Your task to perform on an android device: toggle location history Image 0: 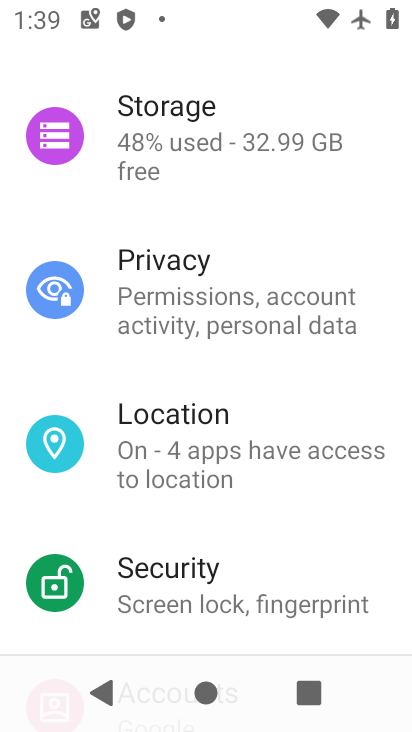
Step 0: press home button
Your task to perform on an android device: toggle location history Image 1: 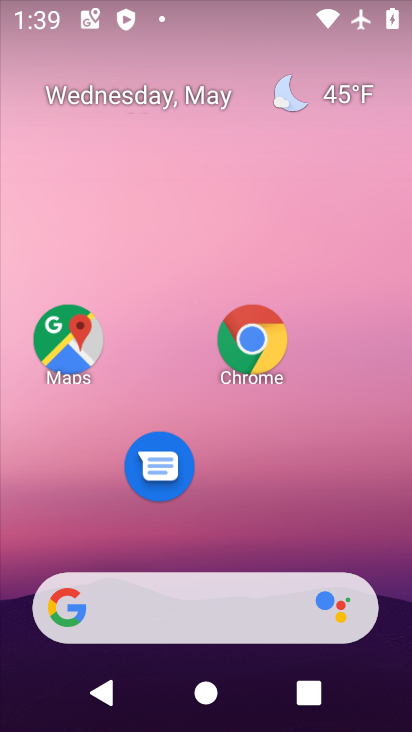
Step 1: drag from (178, 608) to (312, 182)
Your task to perform on an android device: toggle location history Image 2: 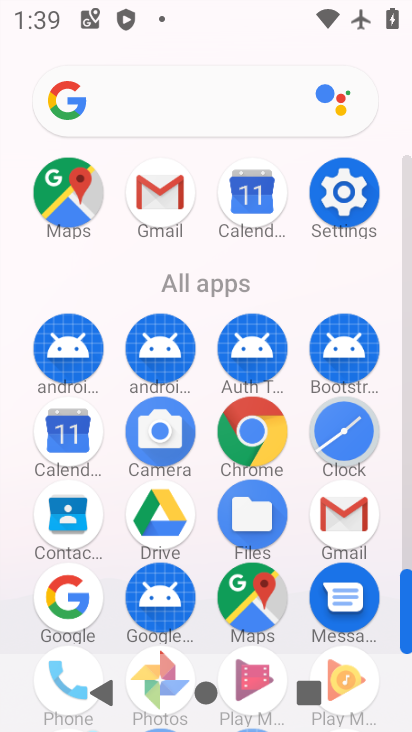
Step 2: click (240, 601)
Your task to perform on an android device: toggle location history Image 3: 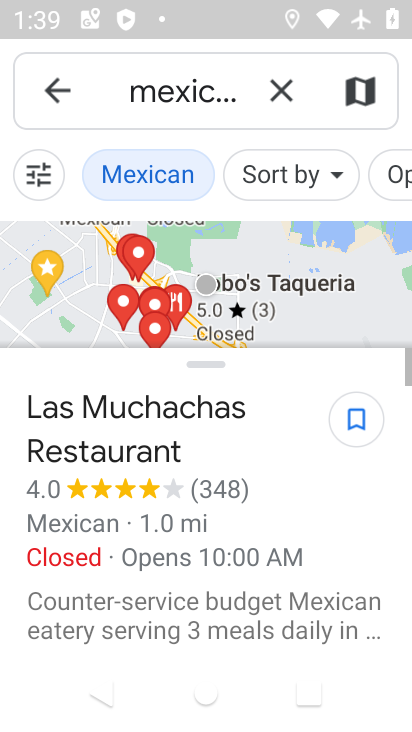
Step 3: click (53, 88)
Your task to perform on an android device: toggle location history Image 4: 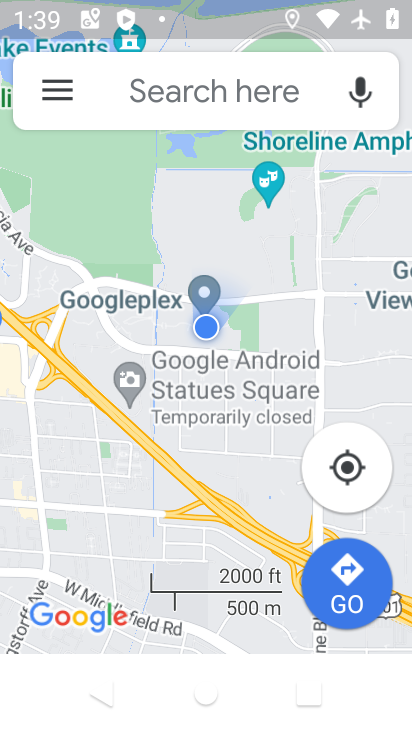
Step 4: click (58, 87)
Your task to perform on an android device: toggle location history Image 5: 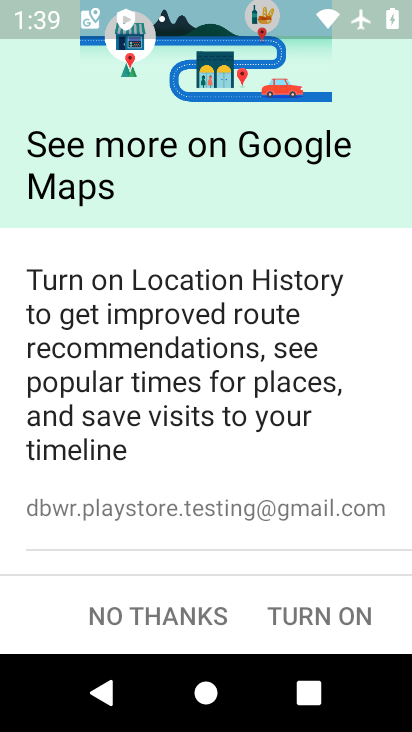
Step 5: click (153, 617)
Your task to perform on an android device: toggle location history Image 6: 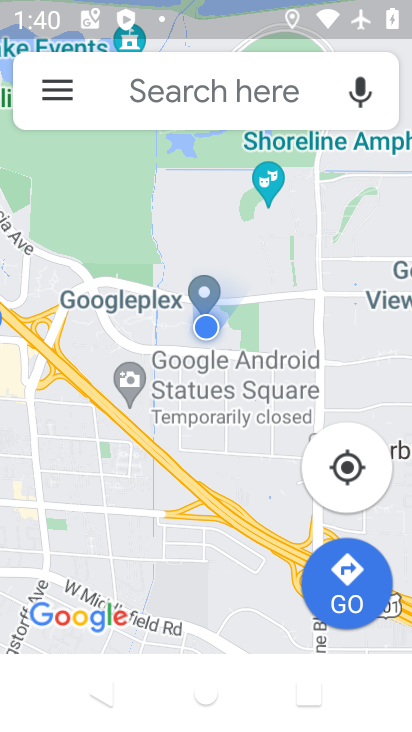
Step 6: click (45, 81)
Your task to perform on an android device: toggle location history Image 7: 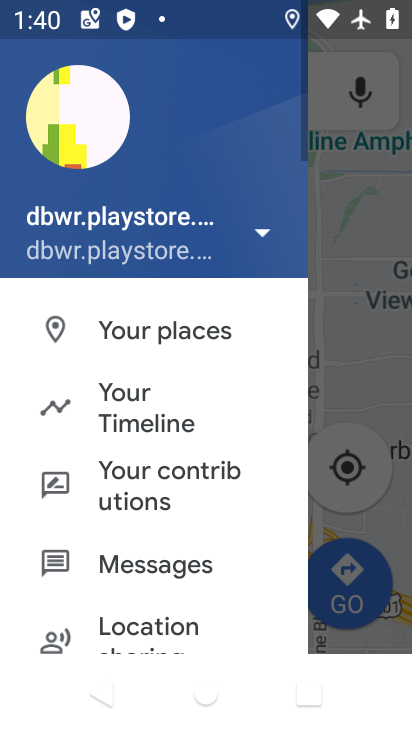
Step 7: click (161, 404)
Your task to perform on an android device: toggle location history Image 8: 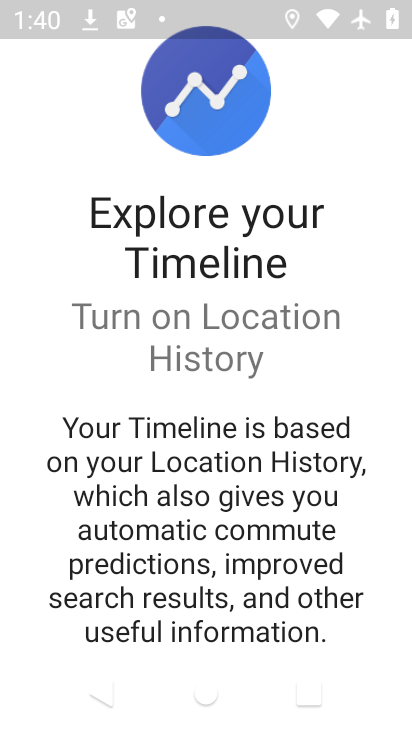
Step 8: drag from (236, 617) to (327, 116)
Your task to perform on an android device: toggle location history Image 9: 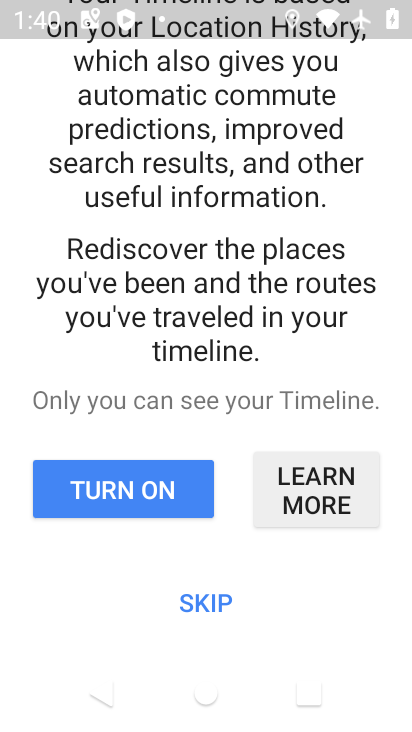
Step 9: click (219, 599)
Your task to perform on an android device: toggle location history Image 10: 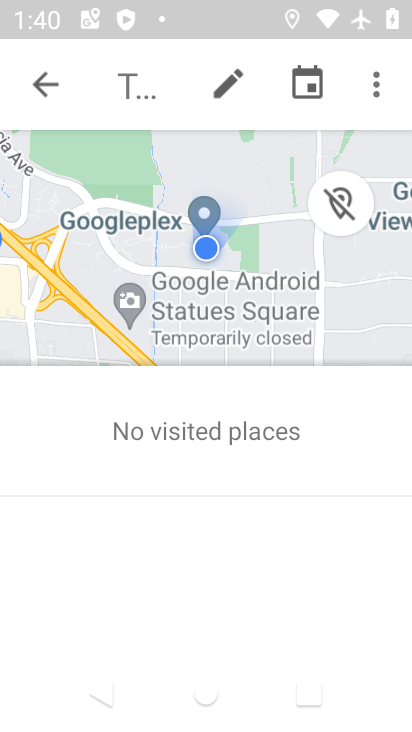
Step 10: click (366, 90)
Your task to perform on an android device: toggle location history Image 11: 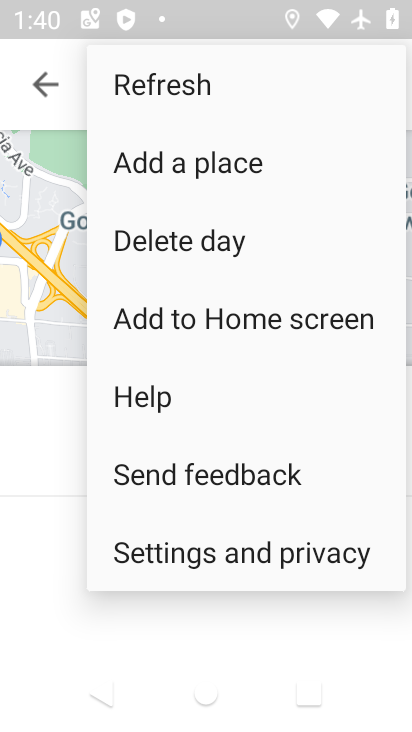
Step 11: click (220, 562)
Your task to perform on an android device: toggle location history Image 12: 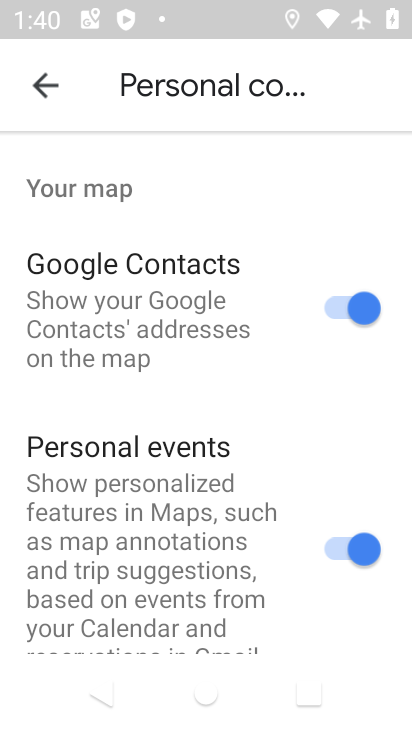
Step 12: drag from (151, 635) to (310, 88)
Your task to perform on an android device: toggle location history Image 13: 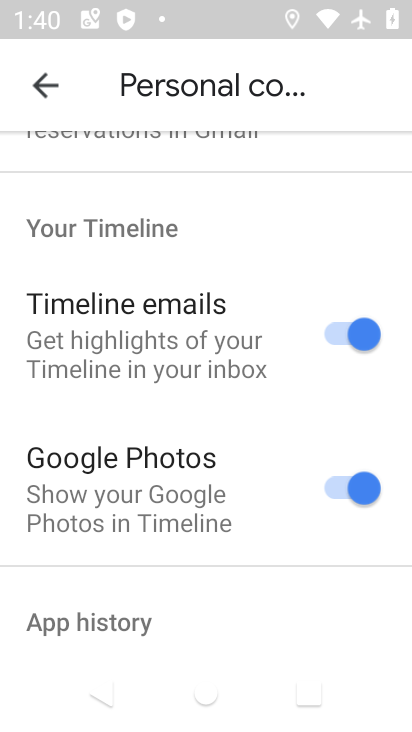
Step 13: drag from (235, 573) to (270, 130)
Your task to perform on an android device: toggle location history Image 14: 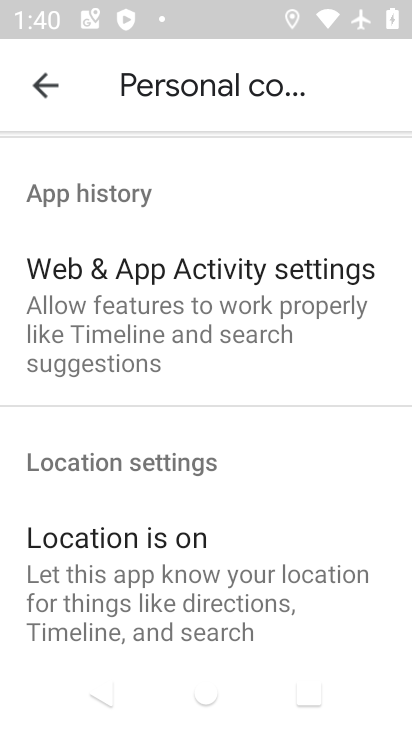
Step 14: drag from (273, 459) to (332, 133)
Your task to perform on an android device: toggle location history Image 15: 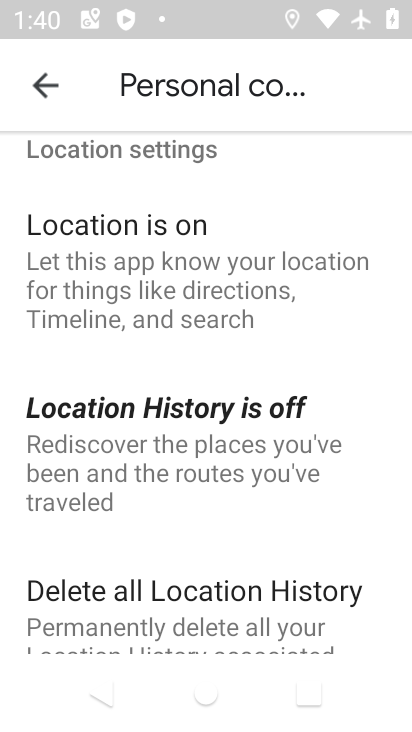
Step 15: click (193, 419)
Your task to perform on an android device: toggle location history Image 16: 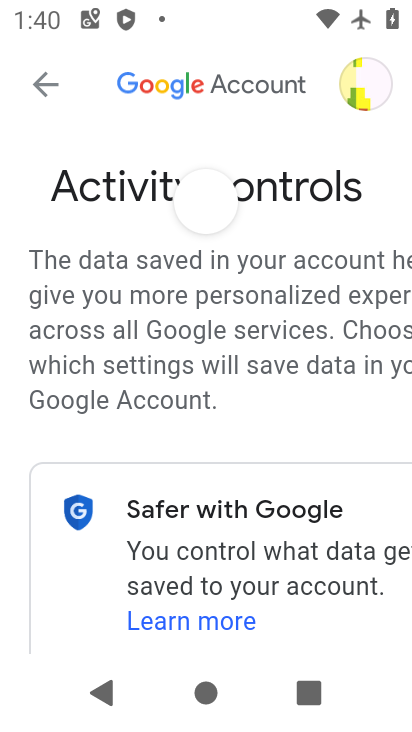
Step 16: drag from (180, 529) to (280, 65)
Your task to perform on an android device: toggle location history Image 17: 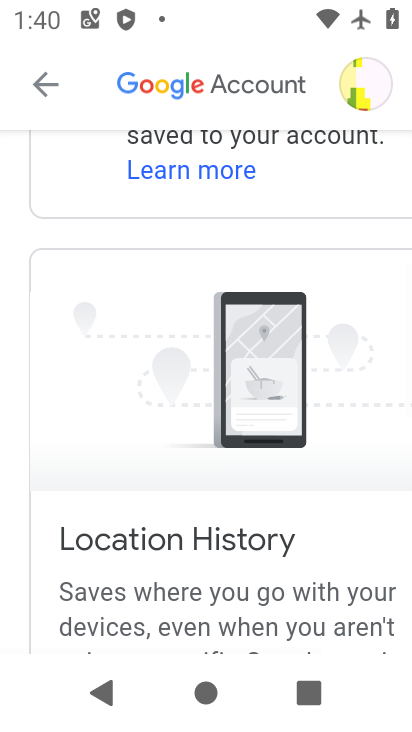
Step 17: drag from (166, 478) to (278, 116)
Your task to perform on an android device: toggle location history Image 18: 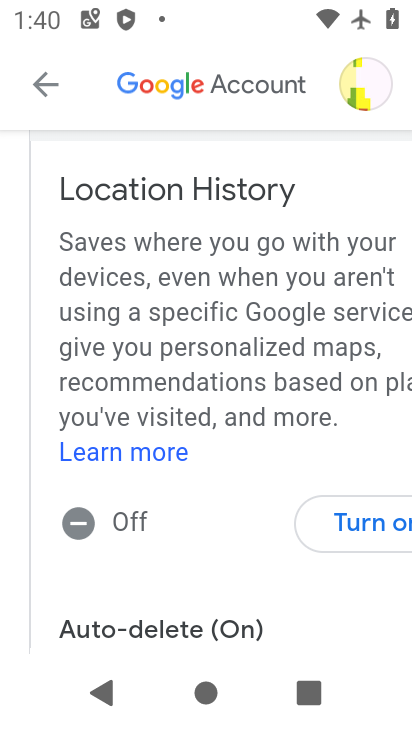
Step 18: click (350, 525)
Your task to perform on an android device: toggle location history Image 19: 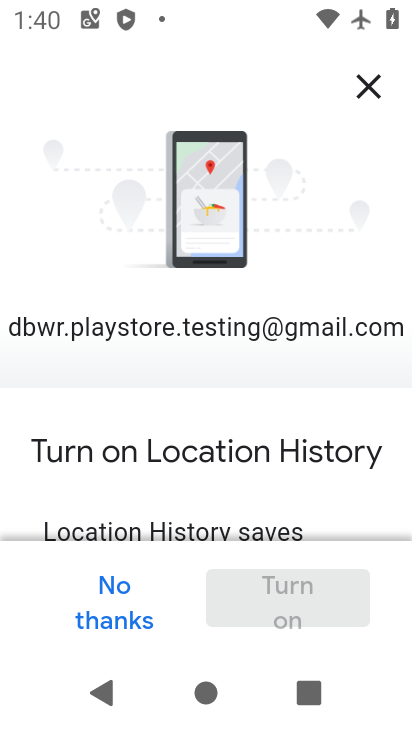
Step 19: drag from (258, 510) to (285, 102)
Your task to perform on an android device: toggle location history Image 20: 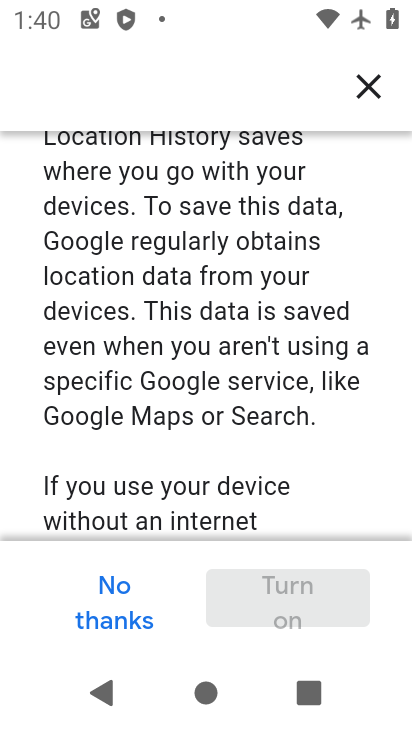
Step 20: drag from (285, 477) to (348, 90)
Your task to perform on an android device: toggle location history Image 21: 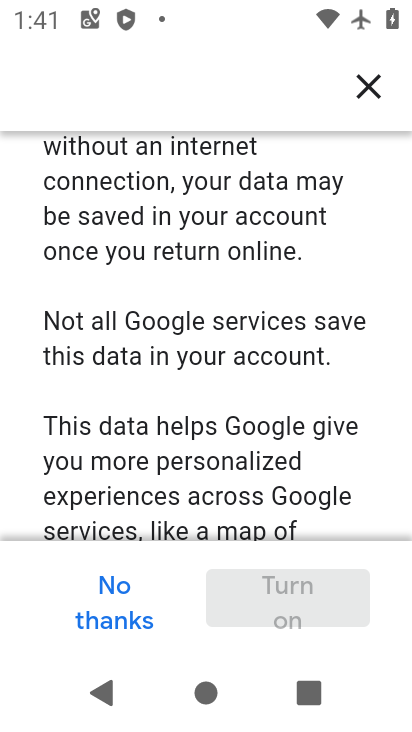
Step 21: drag from (283, 480) to (363, 133)
Your task to perform on an android device: toggle location history Image 22: 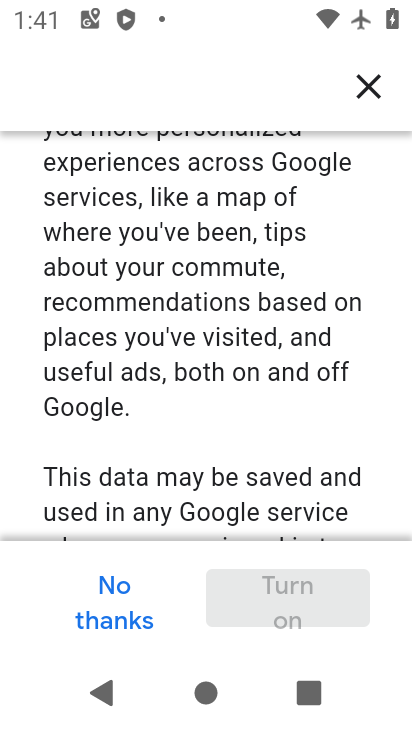
Step 22: drag from (274, 446) to (331, 64)
Your task to perform on an android device: toggle location history Image 23: 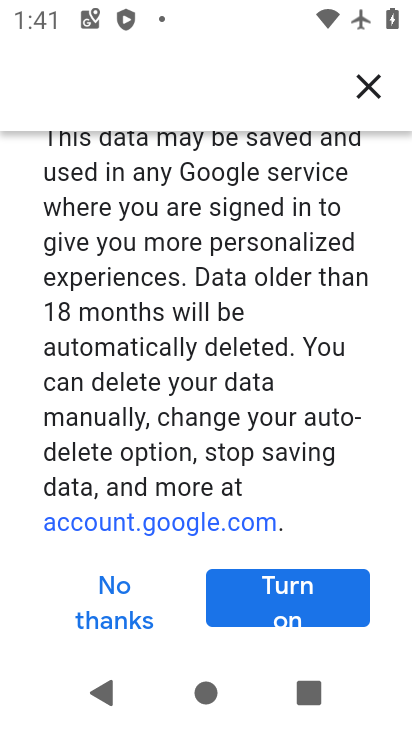
Step 23: click (298, 588)
Your task to perform on an android device: toggle location history Image 24: 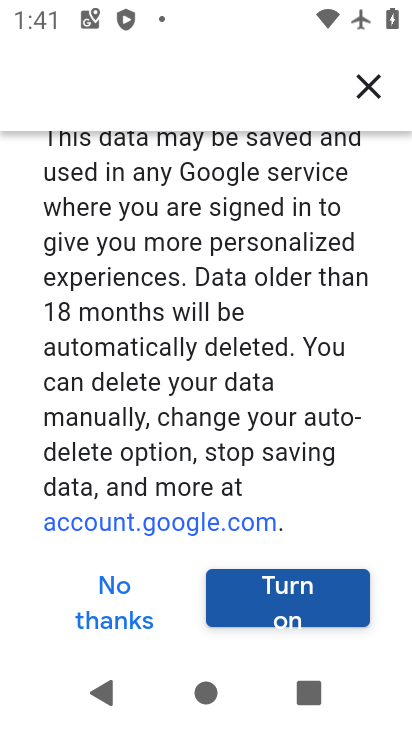
Step 24: click (295, 595)
Your task to perform on an android device: toggle location history Image 25: 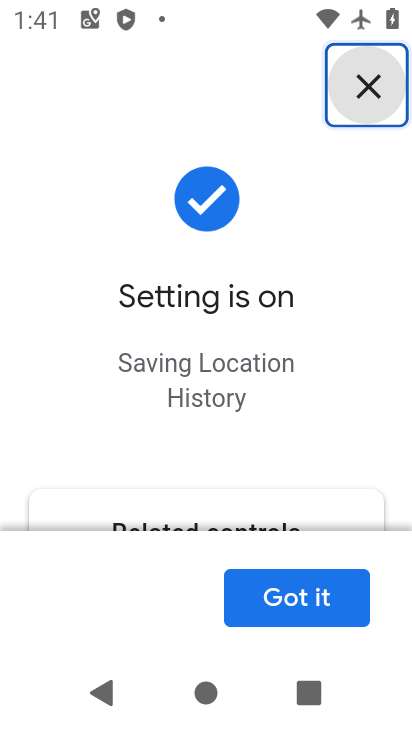
Step 25: task complete